Your task to perform on an android device: What's the weather? Image 0: 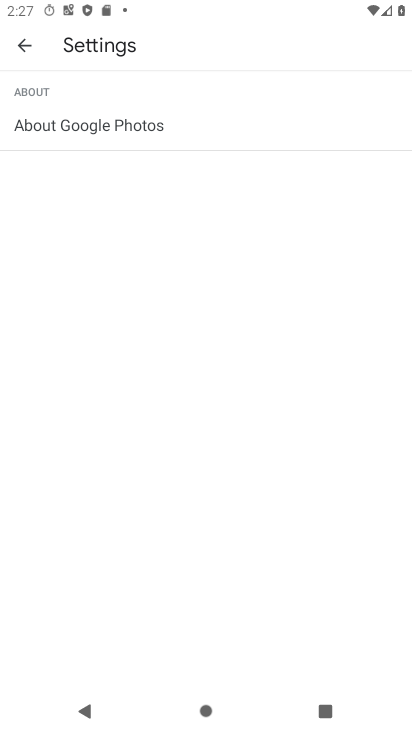
Step 0: press home button
Your task to perform on an android device: What's the weather? Image 1: 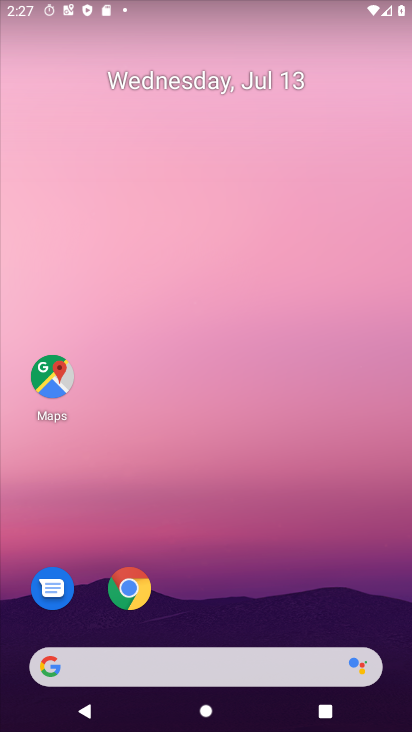
Step 1: drag from (202, 654) to (206, 344)
Your task to perform on an android device: What's the weather? Image 2: 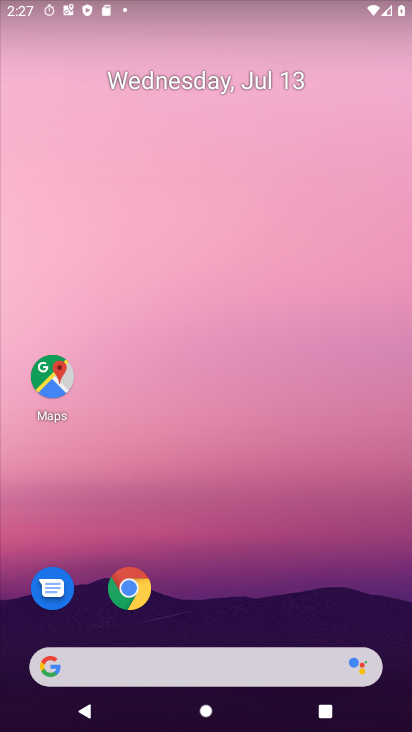
Step 2: drag from (172, 650) to (178, 345)
Your task to perform on an android device: What's the weather? Image 3: 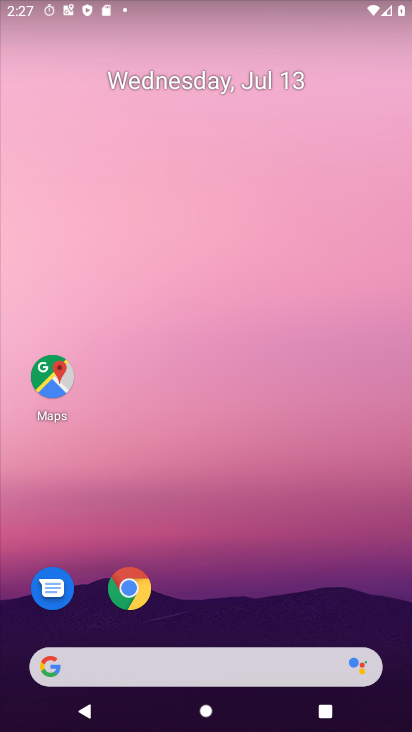
Step 3: drag from (239, 620) to (291, 180)
Your task to perform on an android device: What's the weather? Image 4: 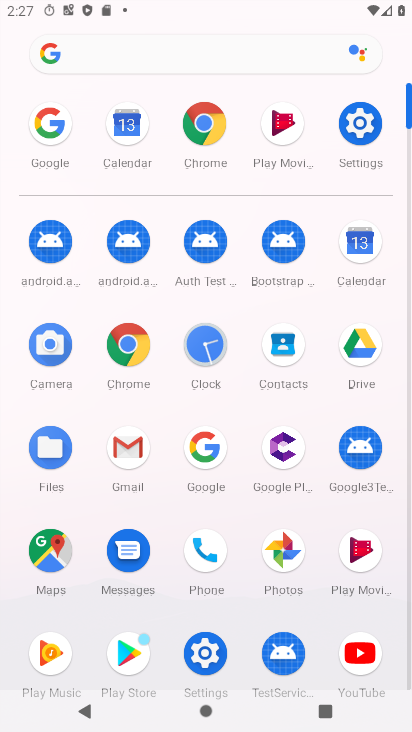
Step 4: click (196, 451)
Your task to perform on an android device: What's the weather? Image 5: 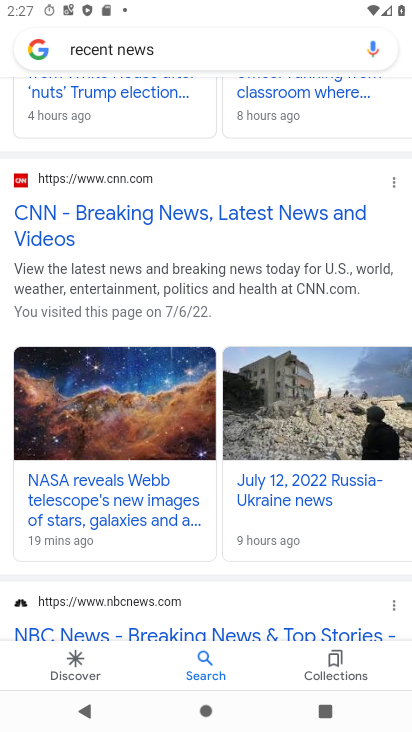
Step 5: click (135, 49)
Your task to perform on an android device: What's the weather? Image 6: 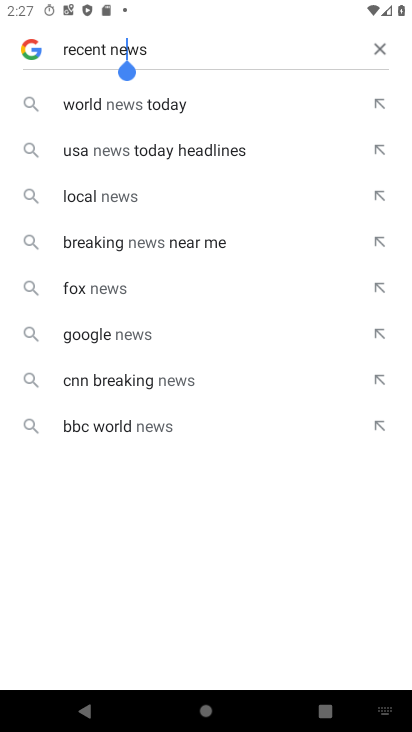
Step 6: click (379, 49)
Your task to perform on an android device: What's the weather? Image 7: 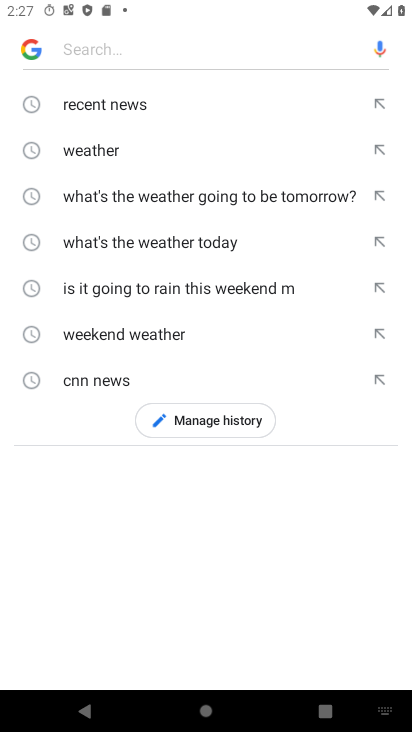
Step 7: click (116, 139)
Your task to perform on an android device: What's the weather? Image 8: 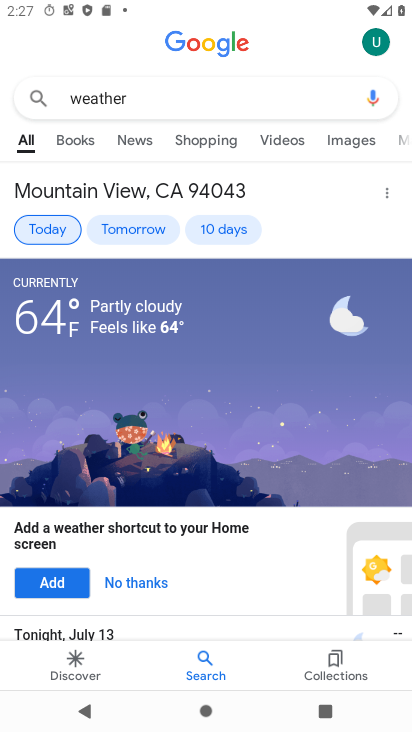
Step 8: task complete